Your task to perform on an android device: Go to location settings Image 0: 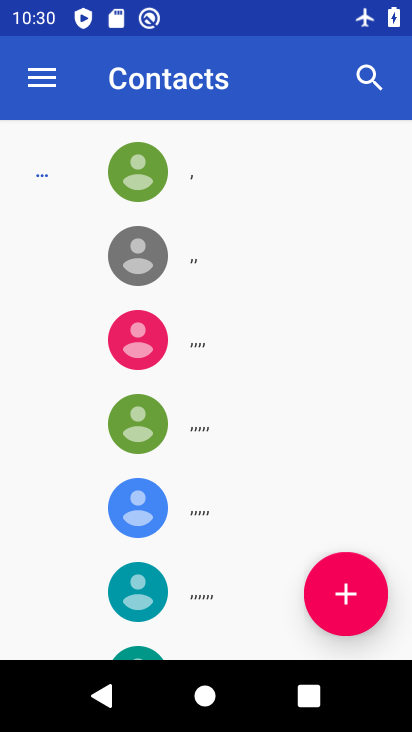
Step 0: press back button
Your task to perform on an android device: Go to location settings Image 1: 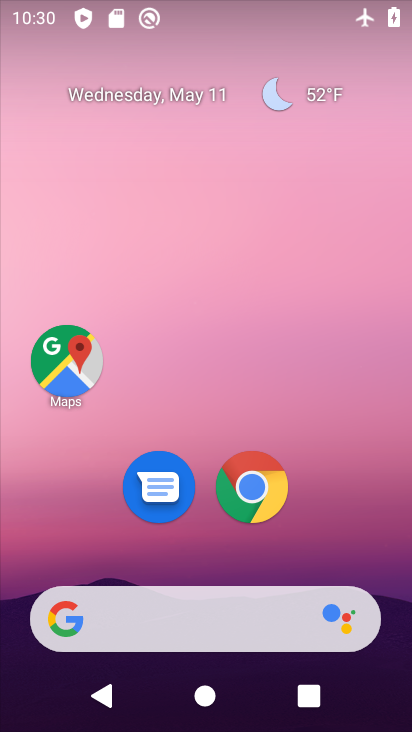
Step 1: drag from (340, 508) to (269, 3)
Your task to perform on an android device: Go to location settings Image 2: 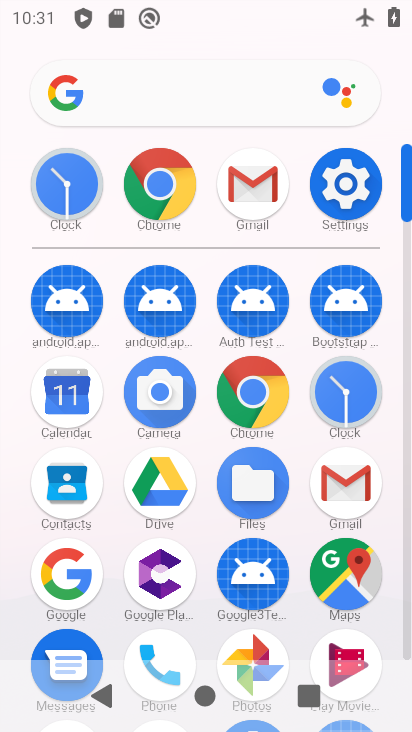
Step 2: click (344, 186)
Your task to perform on an android device: Go to location settings Image 3: 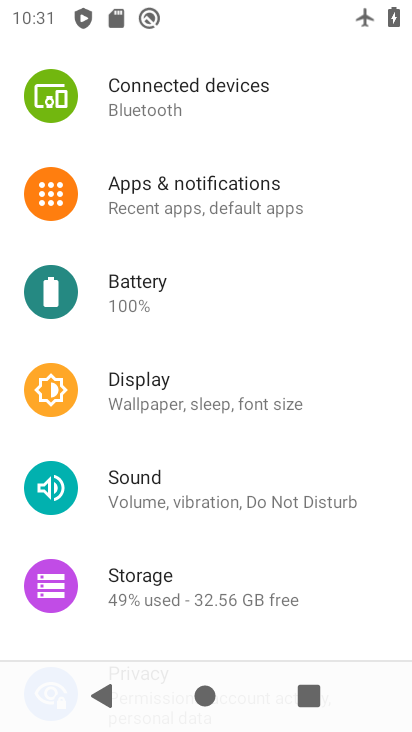
Step 3: drag from (277, 294) to (278, 104)
Your task to perform on an android device: Go to location settings Image 4: 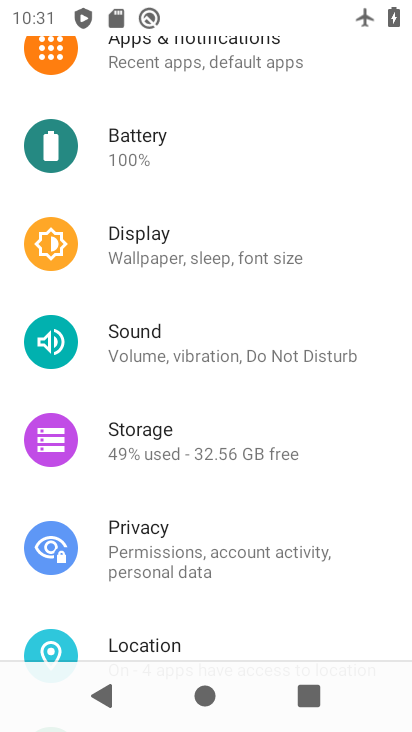
Step 4: drag from (211, 512) to (223, 178)
Your task to perform on an android device: Go to location settings Image 5: 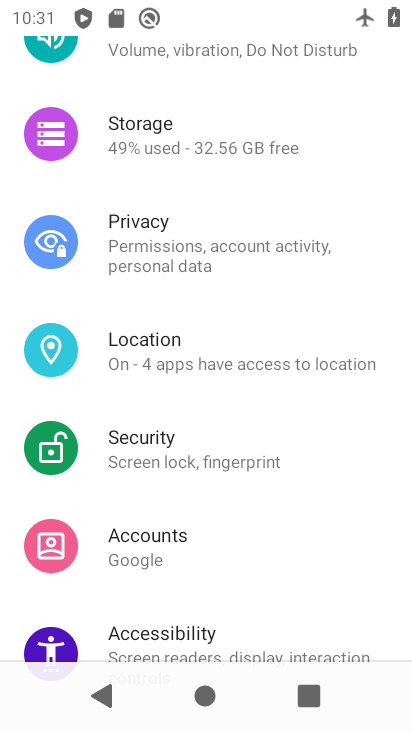
Step 5: click (154, 345)
Your task to perform on an android device: Go to location settings Image 6: 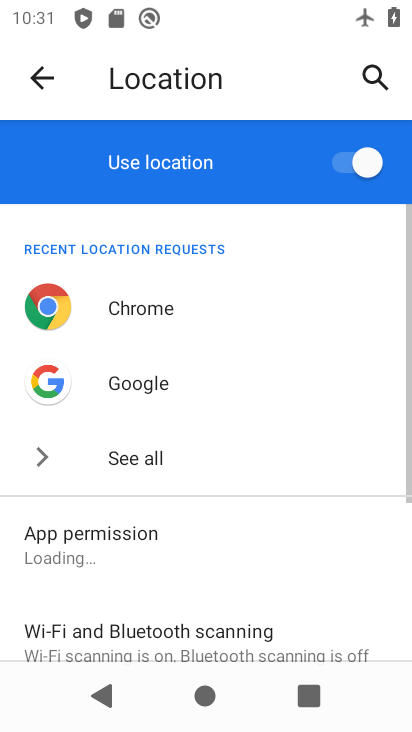
Step 6: drag from (249, 599) to (270, 275)
Your task to perform on an android device: Go to location settings Image 7: 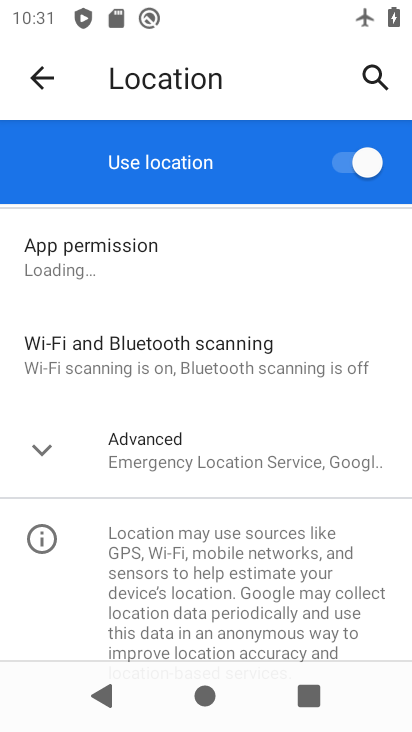
Step 7: drag from (235, 571) to (247, 213)
Your task to perform on an android device: Go to location settings Image 8: 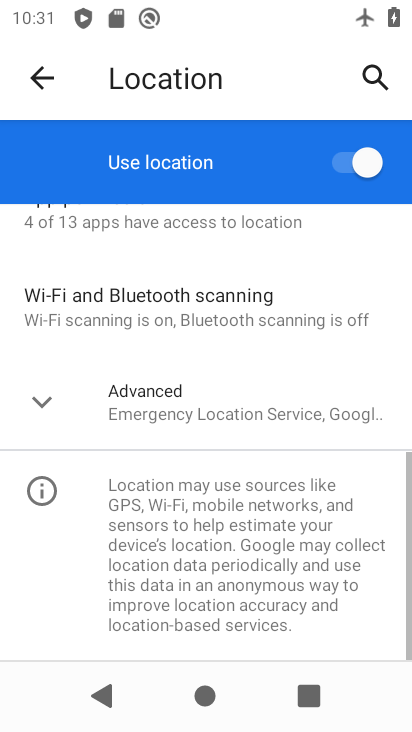
Step 8: click (54, 400)
Your task to perform on an android device: Go to location settings Image 9: 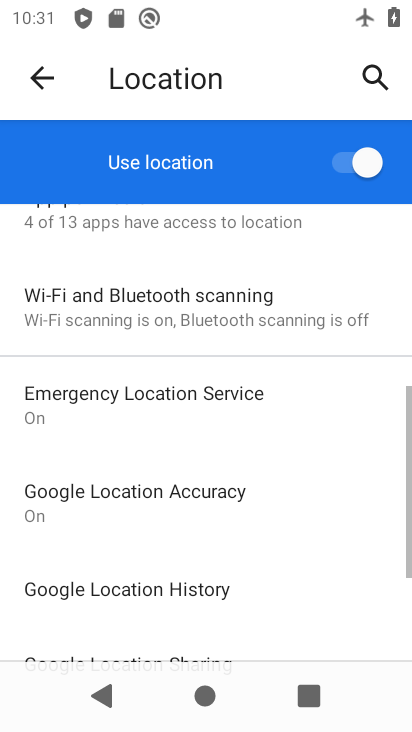
Step 9: task complete